Your task to perform on an android device: Open display settings Image 0: 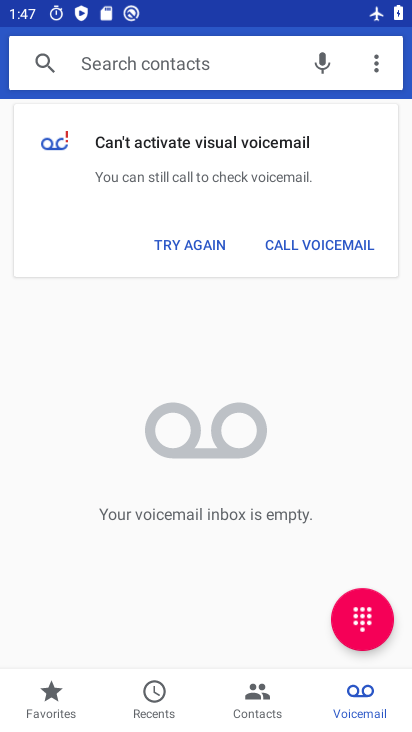
Step 0: press home button
Your task to perform on an android device: Open display settings Image 1: 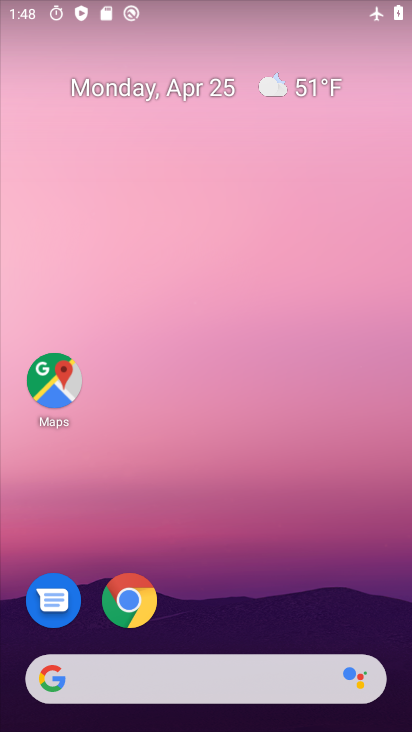
Step 1: drag from (193, 680) to (313, 147)
Your task to perform on an android device: Open display settings Image 2: 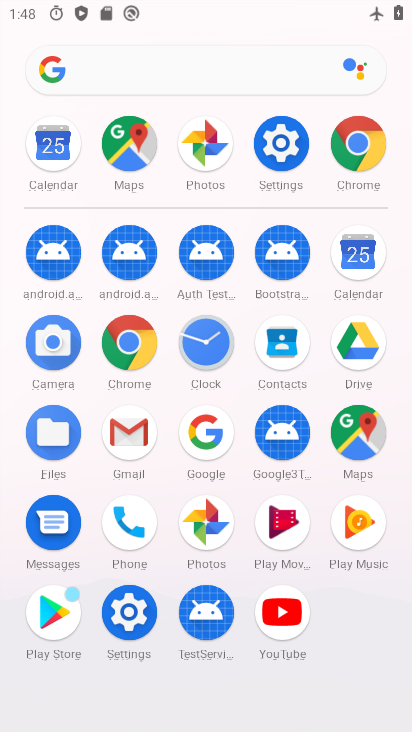
Step 2: click (279, 151)
Your task to perform on an android device: Open display settings Image 3: 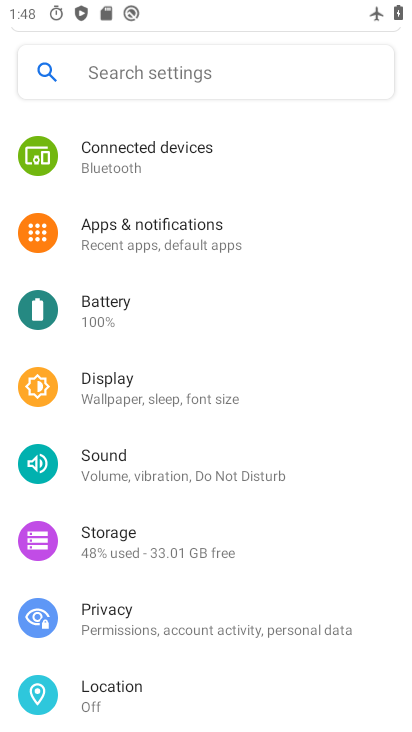
Step 3: click (140, 384)
Your task to perform on an android device: Open display settings Image 4: 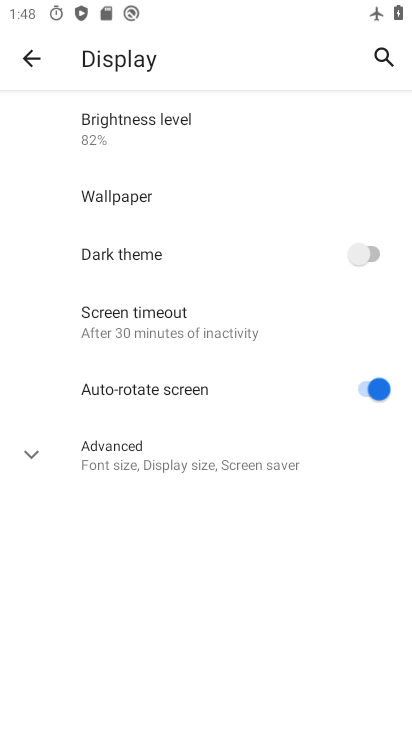
Step 4: task complete